Your task to perform on an android device: Open the Play Movies app and select the watchlist tab. Image 0: 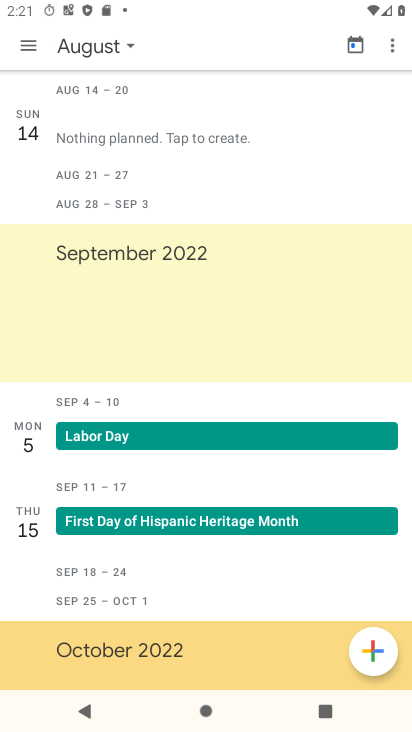
Step 0: press home button
Your task to perform on an android device: Open the Play Movies app and select the watchlist tab. Image 1: 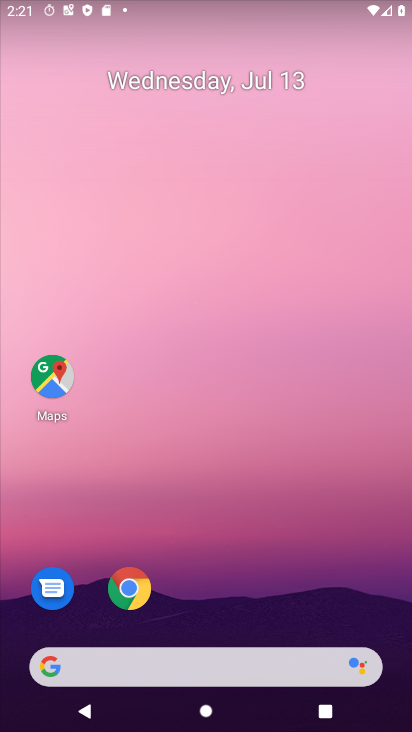
Step 1: drag from (161, 632) to (180, 378)
Your task to perform on an android device: Open the Play Movies app and select the watchlist tab. Image 2: 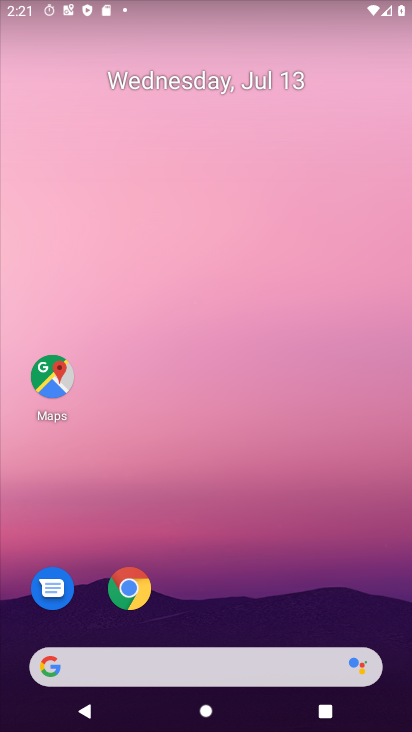
Step 2: drag from (239, 643) to (284, 297)
Your task to perform on an android device: Open the Play Movies app and select the watchlist tab. Image 3: 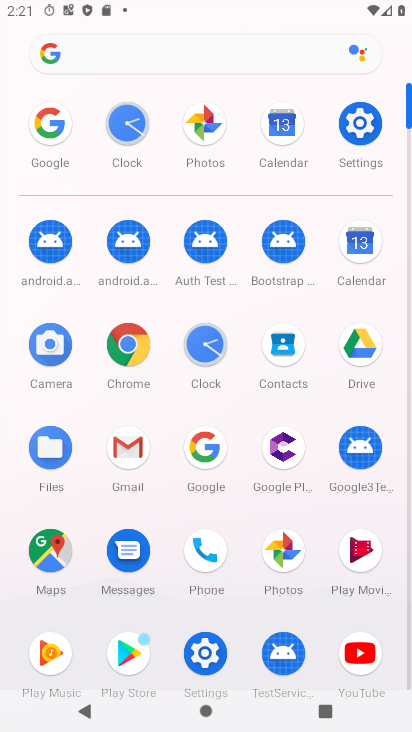
Step 3: click (356, 558)
Your task to perform on an android device: Open the Play Movies app and select the watchlist tab. Image 4: 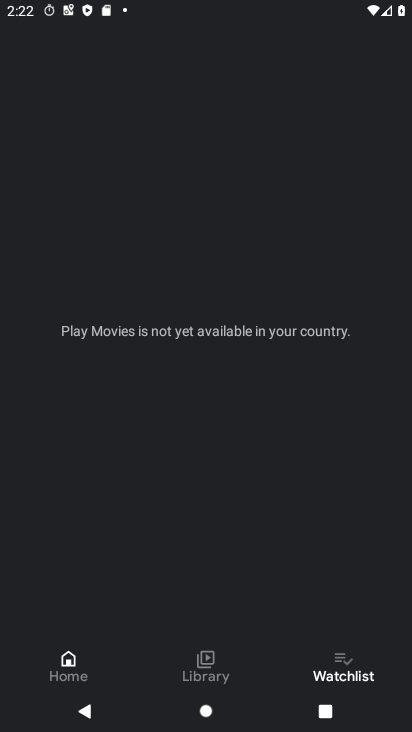
Step 4: task complete